Your task to perform on an android device: What's on my calendar today? Image 0: 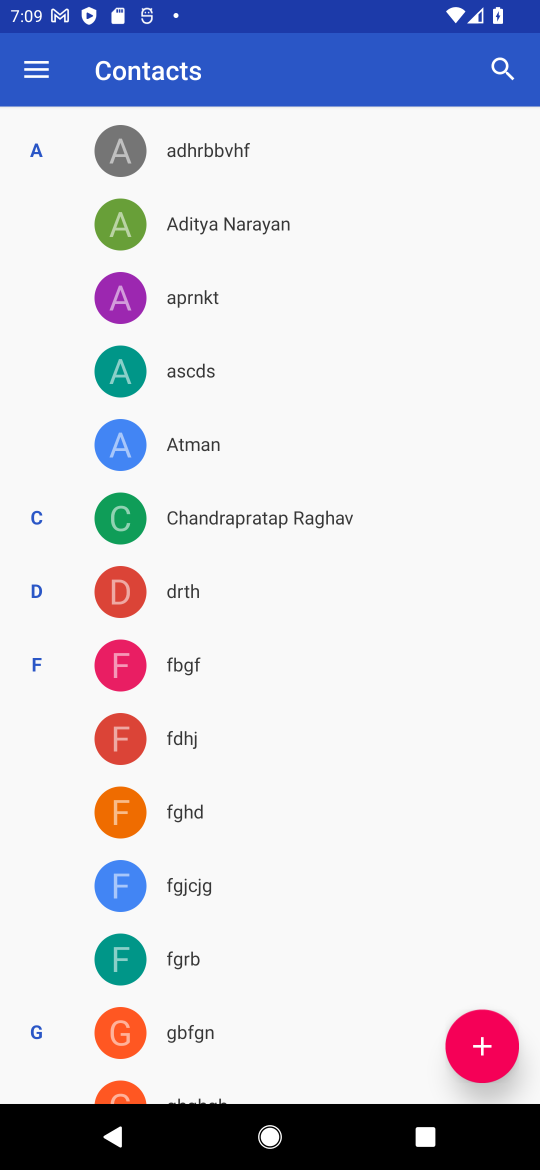
Step 0: press home button
Your task to perform on an android device: What's on my calendar today? Image 1: 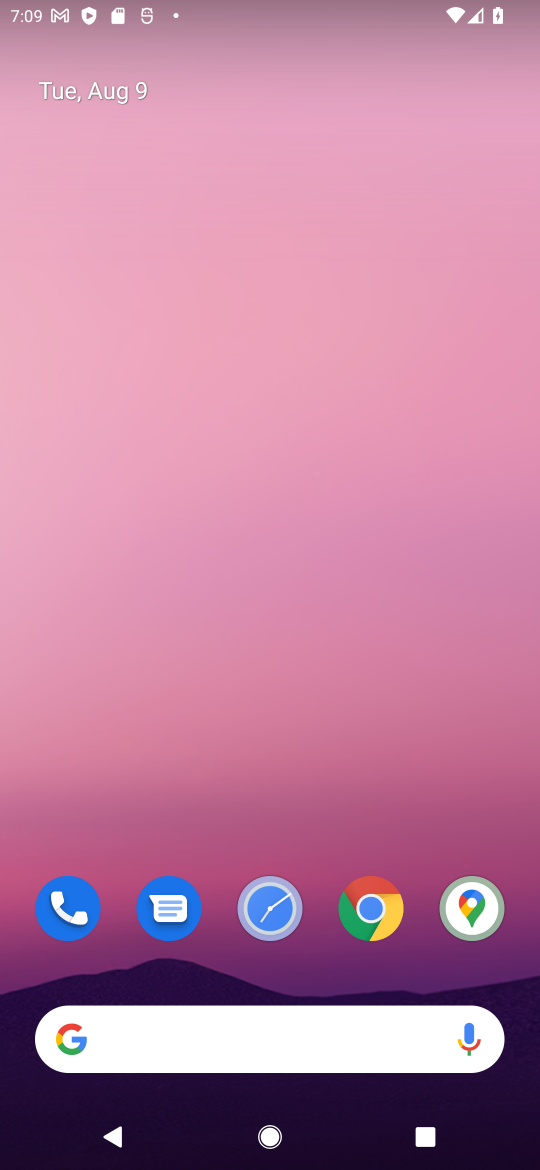
Step 1: drag from (306, 989) to (286, 62)
Your task to perform on an android device: What's on my calendar today? Image 2: 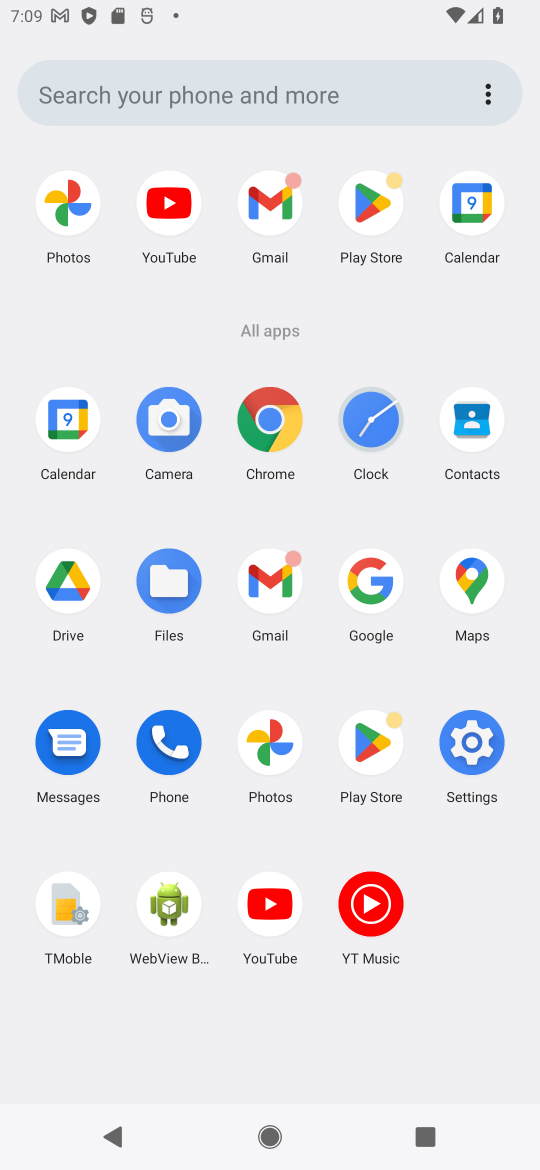
Step 2: click (65, 421)
Your task to perform on an android device: What's on my calendar today? Image 3: 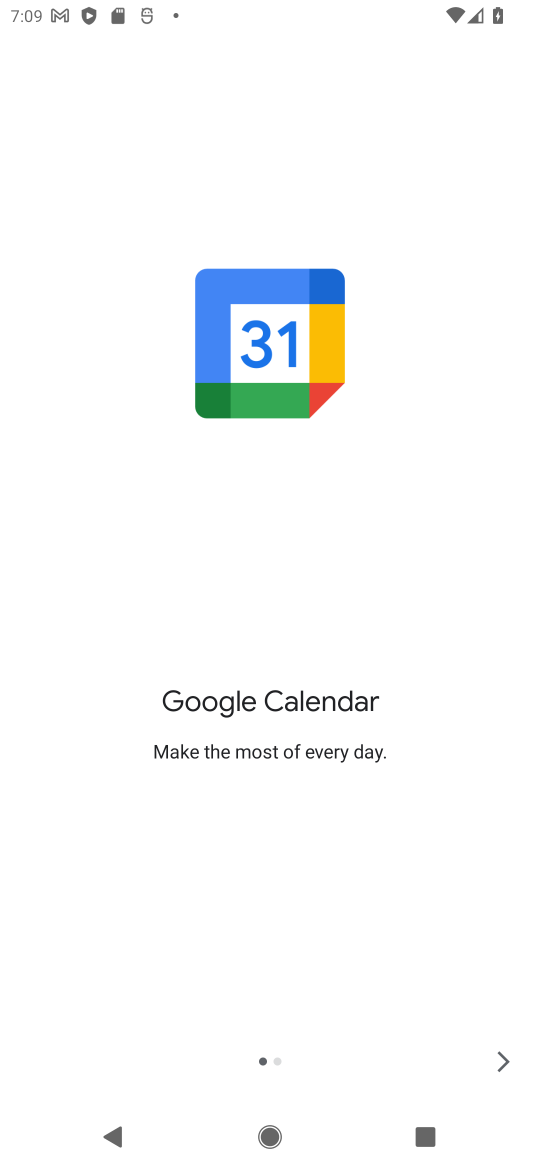
Step 3: click (509, 1053)
Your task to perform on an android device: What's on my calendar today? Image 4: 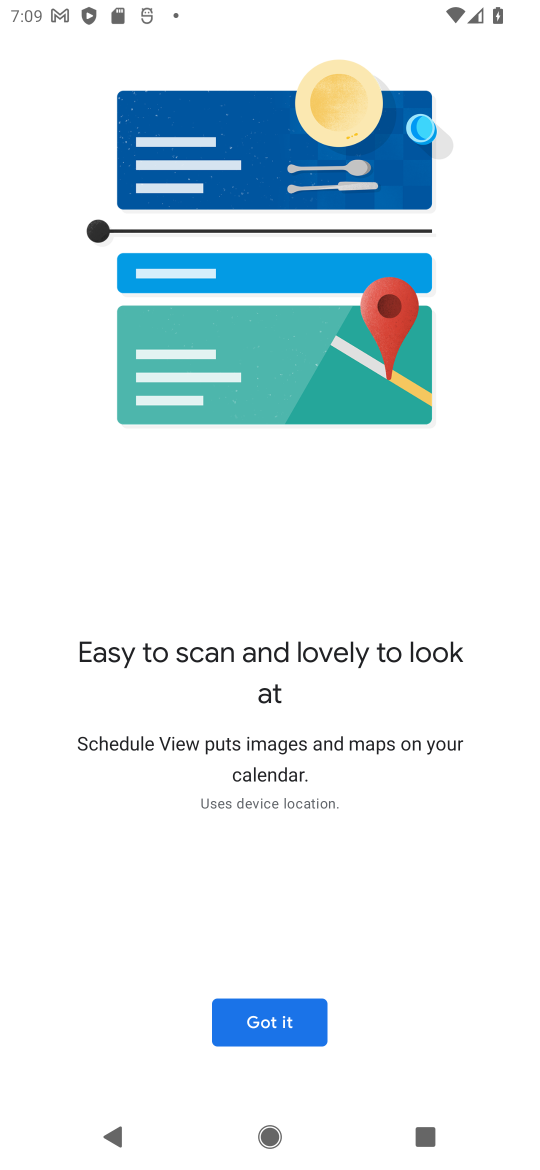
Step 4: click (265, 1023)
Your task to perform on an android device: What's on my calendar today? Image 5: 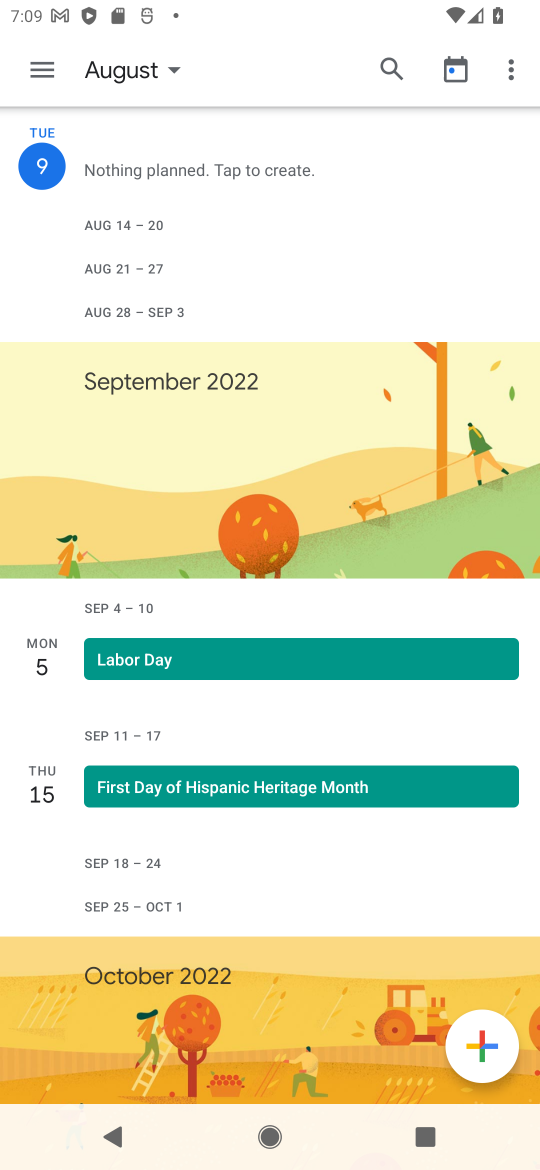
Step 5: click (164, 67)
Your task to perform on an android device: What's on my calendar today? Image 6: 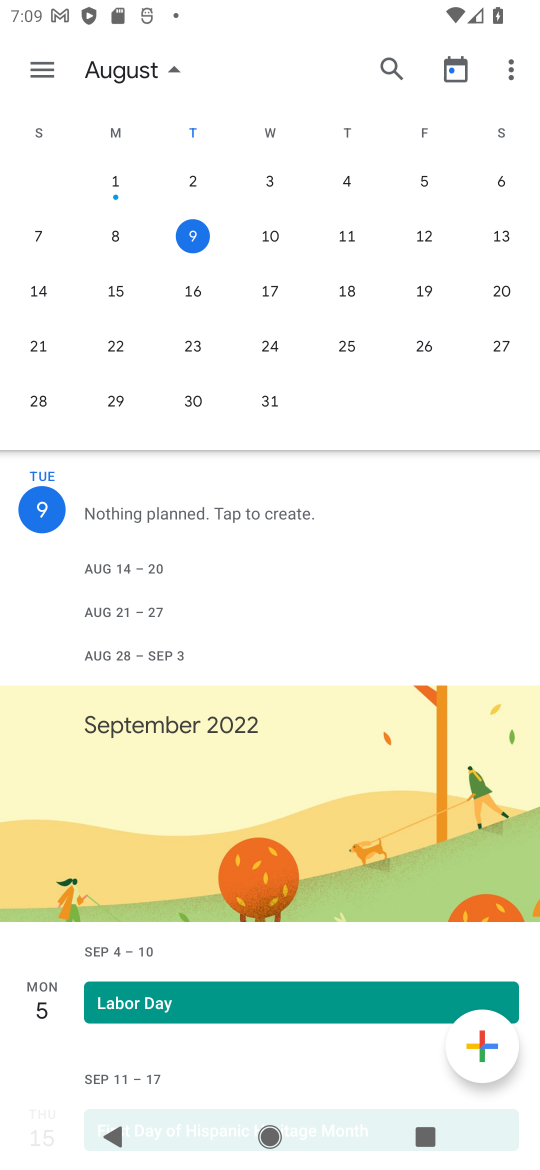
Step 6: click (193, 228)
Your task to perform on an android device: What's on my calendar today? Image 7: 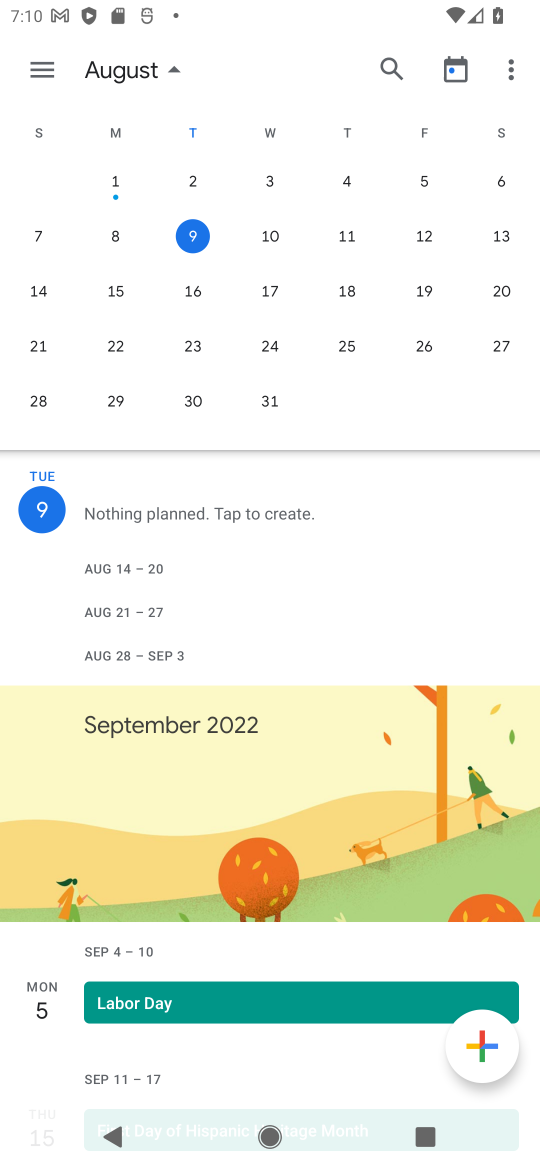
Step 7: click (193, 233)
Your task to perform on an android device: What's on my calendar today? Image 8: 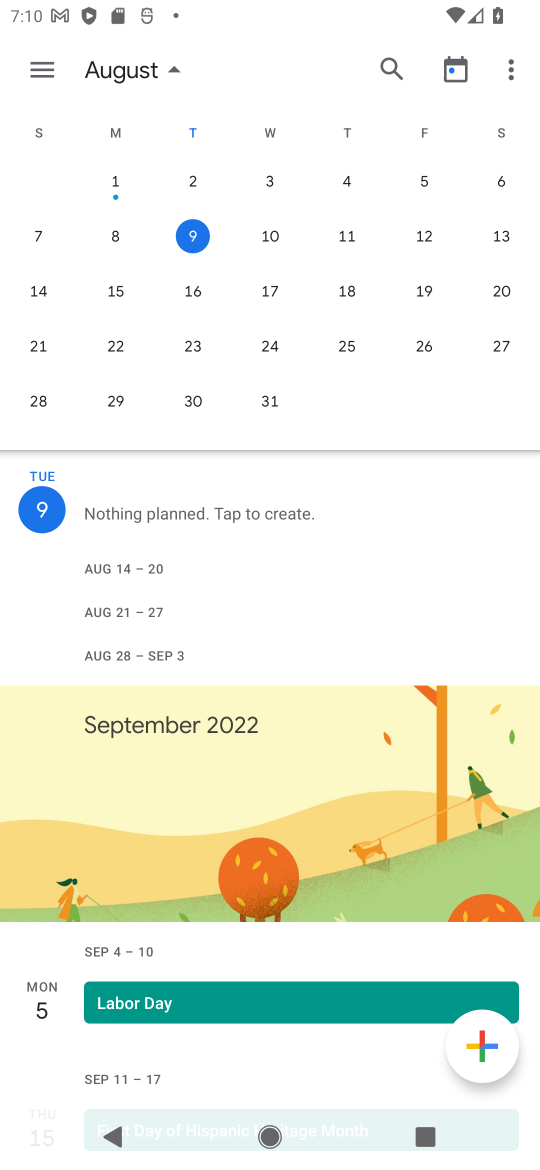
Step 8: click (35, 505)
Your task to perform on an android device: What's on my calendar today? Image 9: 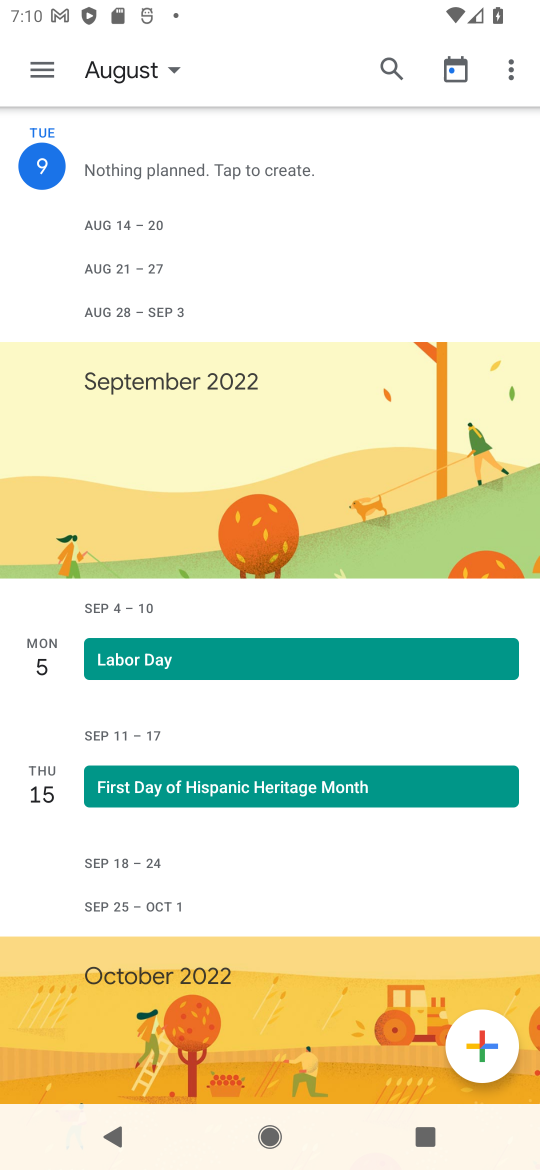
Step 9: task complete